Your task to perform on an android device: Search for pizza restaurants on Maps Image 0: 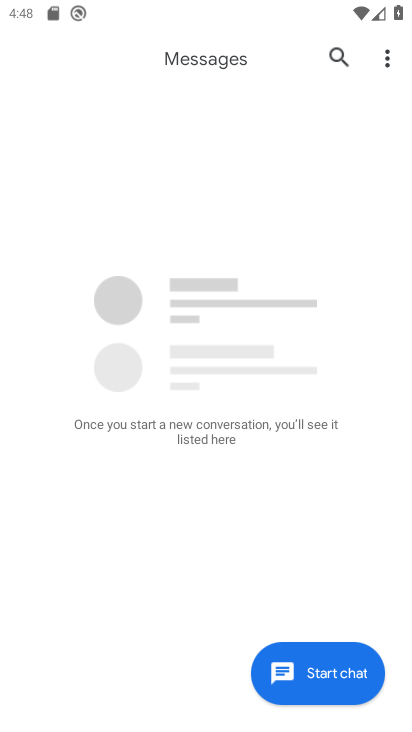
Step 0: drag from (270, 630) to (329, 42)
Your task to perform on an android device: Search for pizza restaurants on Maps Image 1: 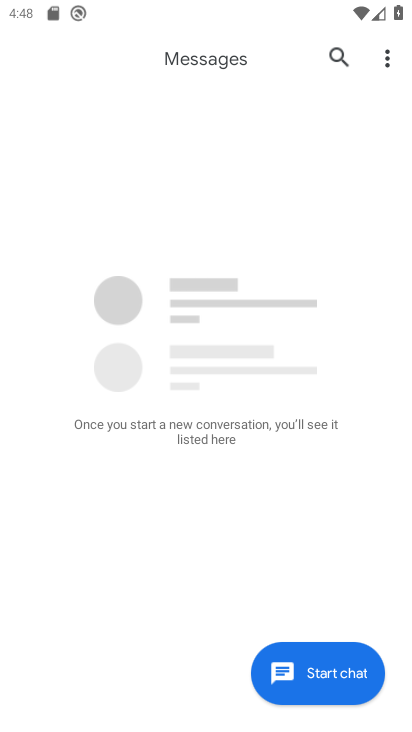
Step 1: press home button
Your task to perform on an android device: Search for pizza restaurants on Maps Image 2: 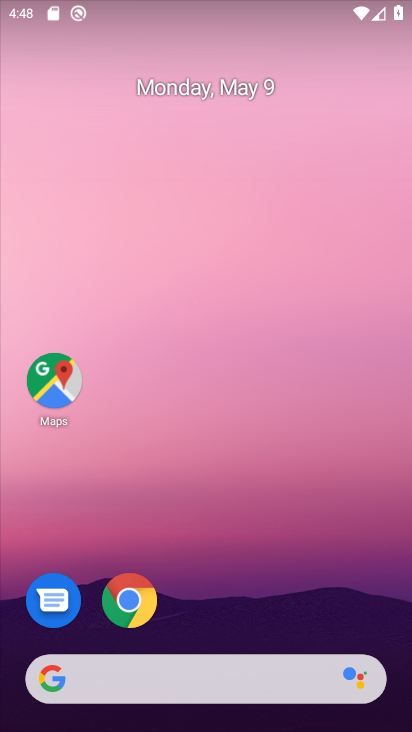
Step 2: drag from (219, 704) to (235, 68)
Your task to perform on an android device: Search for pizza restaurants on Maps Image 3: 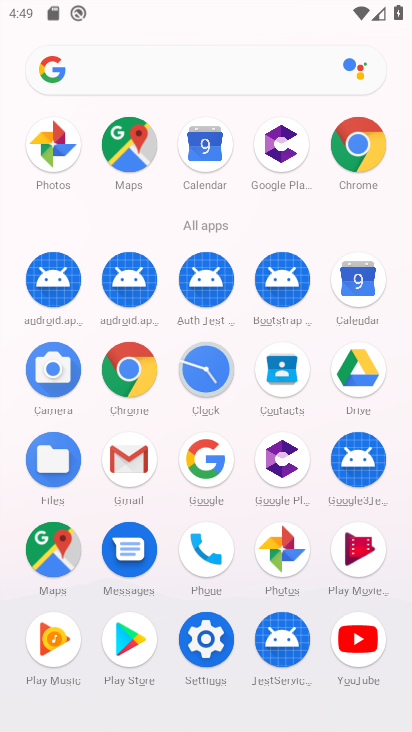
Step 3: click (58, 560)
Your task to perform on an android device: Search for pizza restaurants on Maps Image 4: 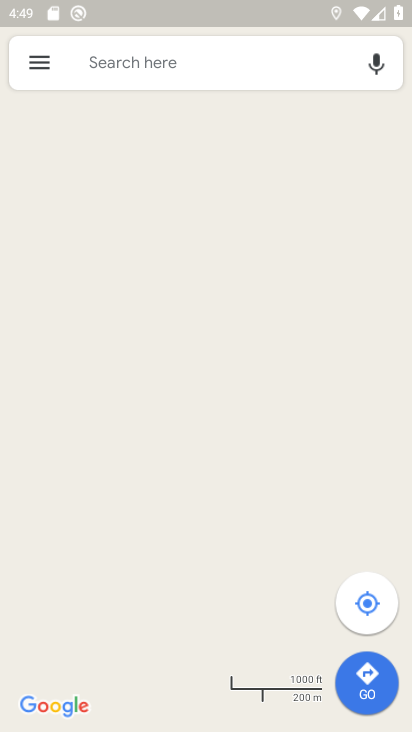
Step 4: click (253, 61)
Your task to perform on an android device: Search for pizza restaurants on Maps Image 5: 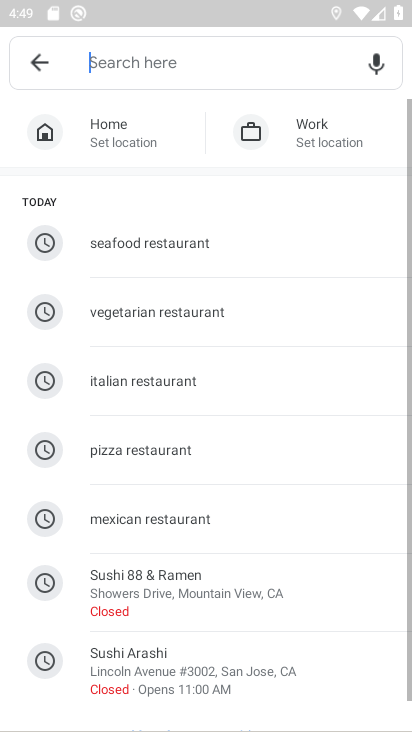
Step 5: click (253, 61)
Your task to perform on an android device: Search for pizza restaurants on Maps Image 6: 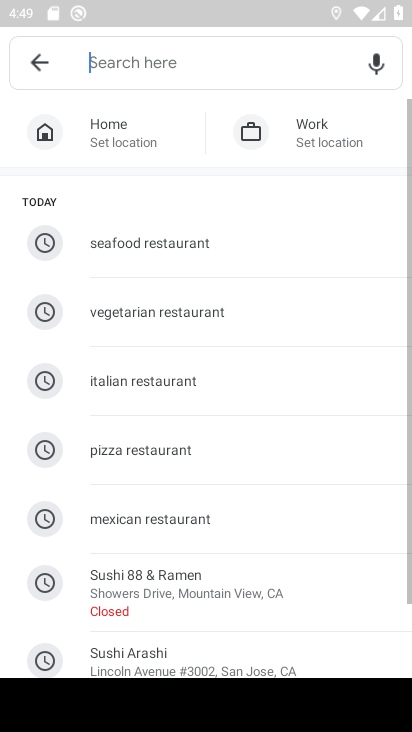
Step 6: click (152, 447)
Your task to perform on an android device: Search for pizza restaurants on Maps Image 7: 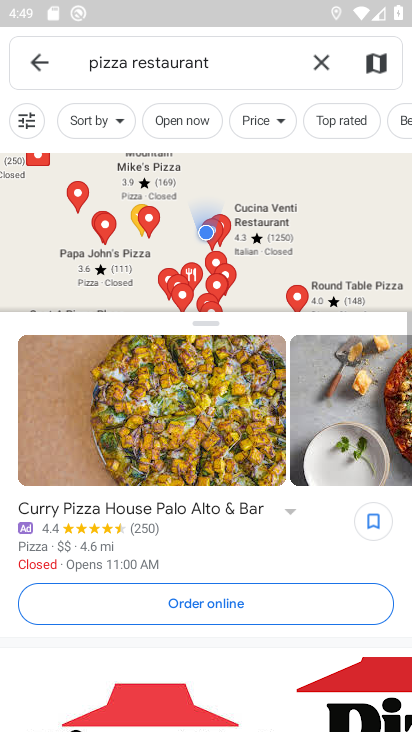
Step 7: task complete